Your task to perform on an android device: add a label to a message in the gmail app Image 0: 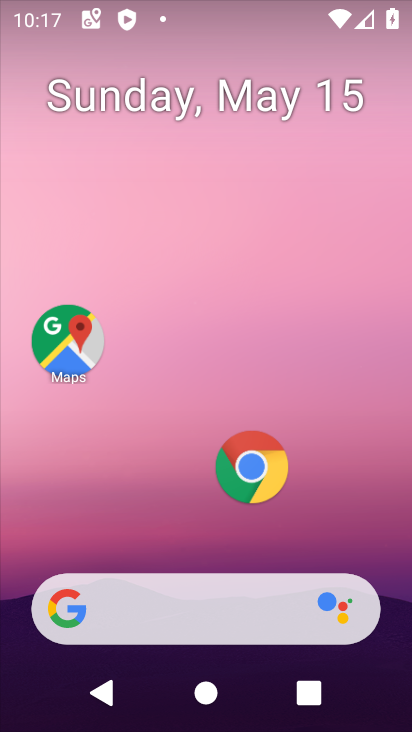
Step 0: drag from (211, 452) to (2, 83)
Your task to perform on an android device: add a label to a message in the gmail app Image 1: 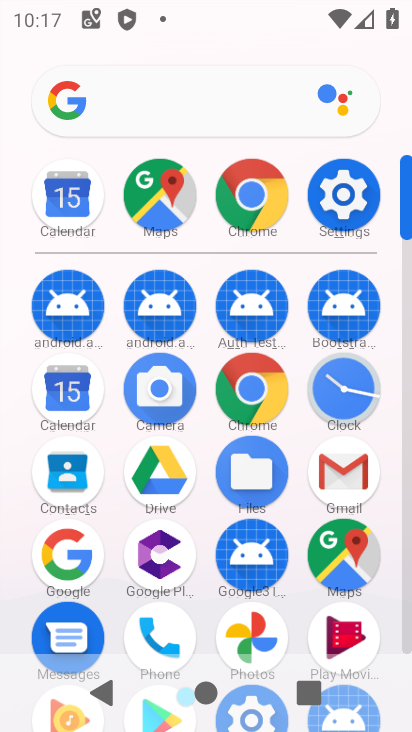
Step 1: click (339, 476)
Your task to perform on an android device: add a label to a message in the gmail app Image 2: 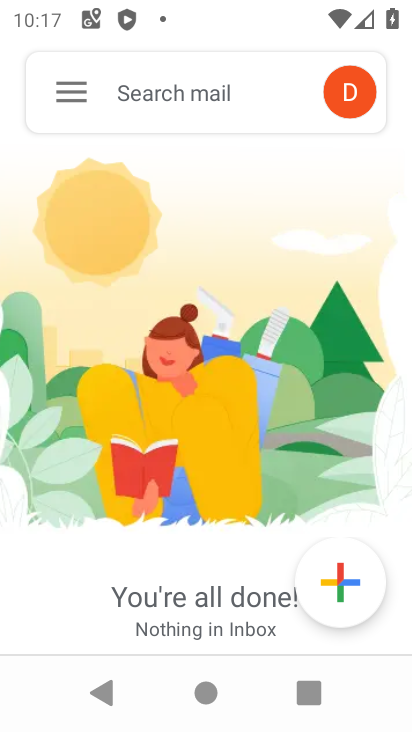
Step 2: drag from (160, 584) to (180, 264)
Your task to perform on an android device: add a label to a message in the gmail app Image 3: 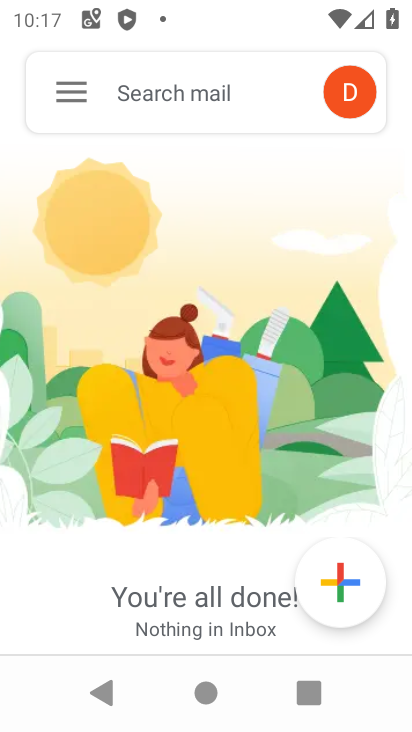
Step 3: click (78, 78)
Your task to perform on an android device: add a label to a message in the gmail app Image 4: 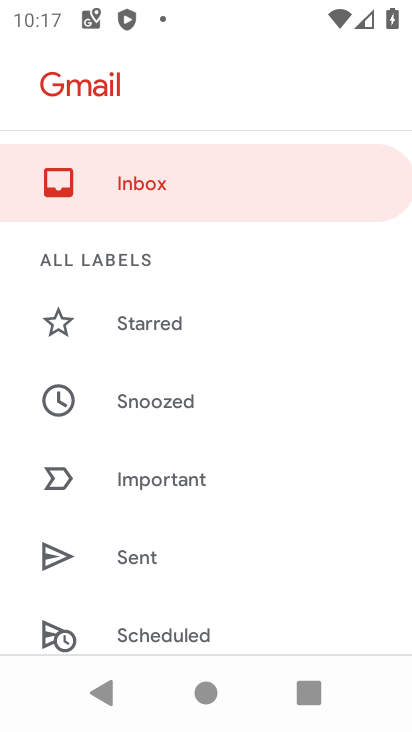
Step 4: drag from (231, 496) to (239, 157)
Your task to perform on an android device: add a label to a message in the gmail app Image 5: 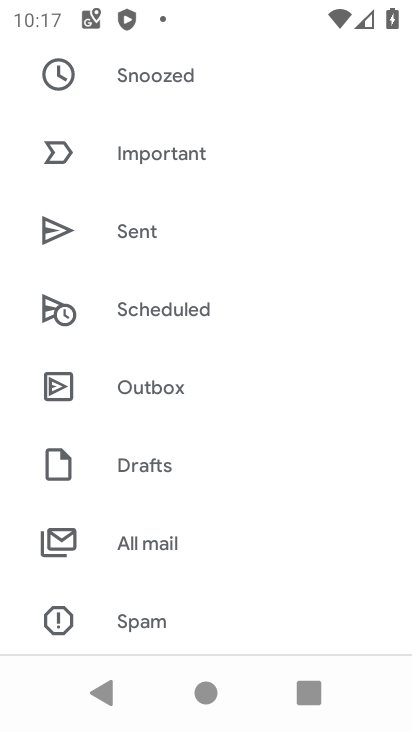
Step 5: click (410, 652)
Your task to perform on an android device: add a label to a message in the gmail app Image 6: 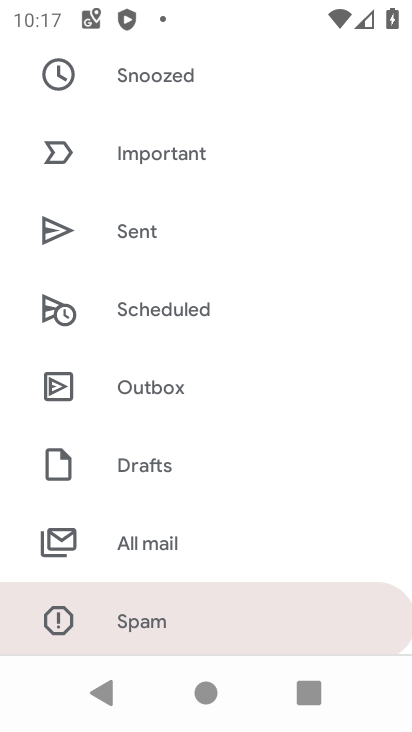
Step 6: task complete